Your task to perform on an android device: turn off location Image 0: 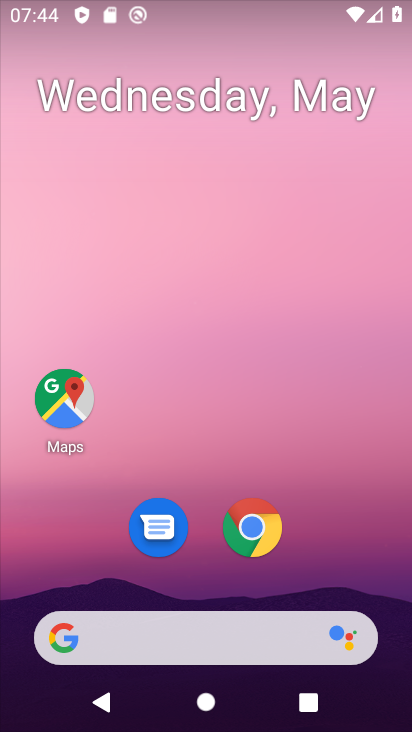
Step 0: drag from (361, 430) to (333, 53)
Your task to perform on an android device: turn off location Image 1: 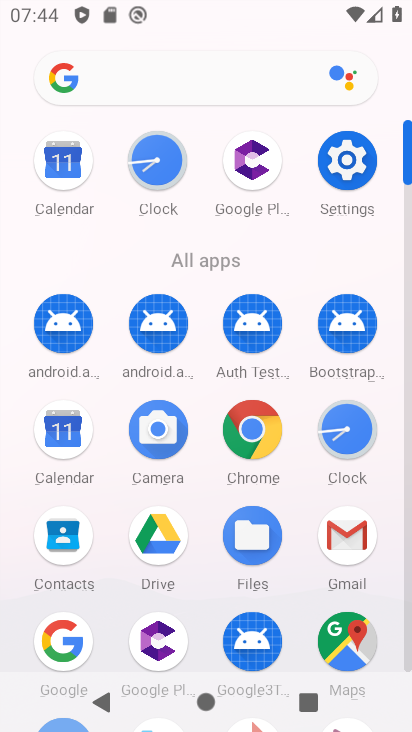
Step 1: click (349, 148)
Your task to perform on an android device: turn off location Image 2: 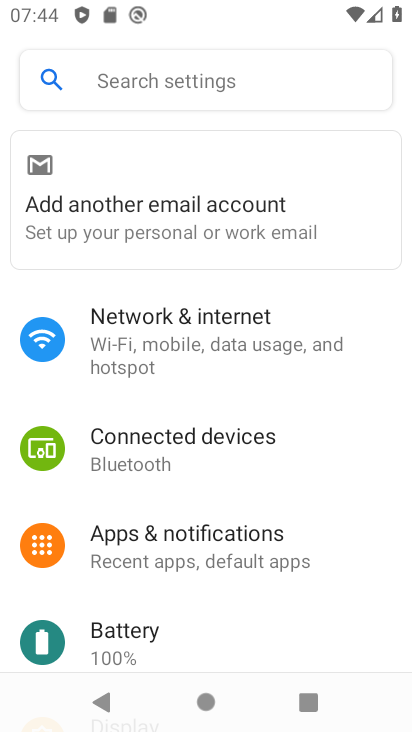
Step 2: drag from (345, 571) to (282, 88)
Your task to perform on an android device: turn off location Image 3: 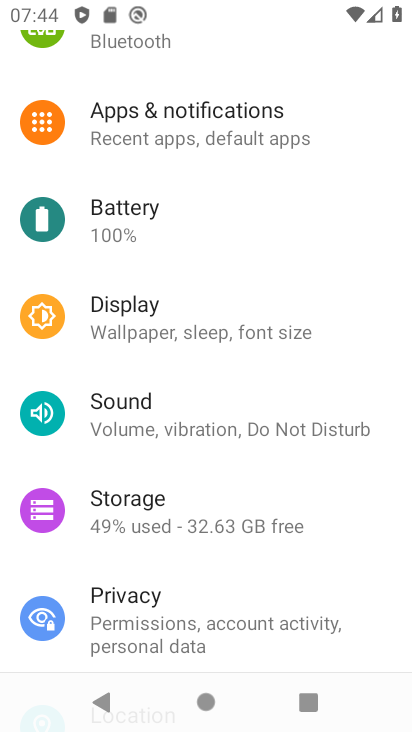
Step 3: drag from (346, 518) to (304, 25)
Your task to perform on an android device: turn off location Image 4: 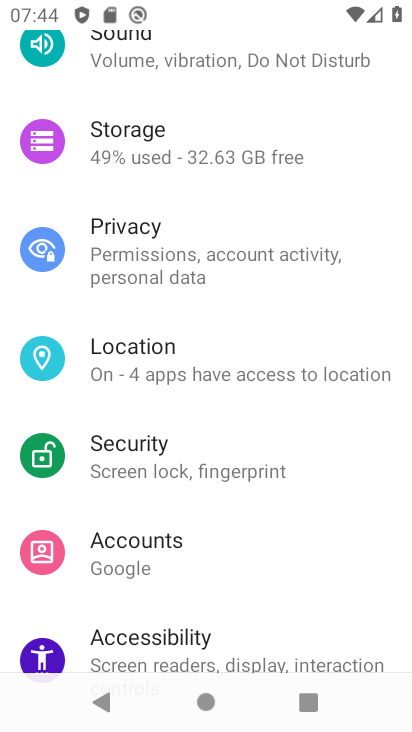
Step 4: click (285, 13)
Your task to perform on an android device: turn off location Image 5: 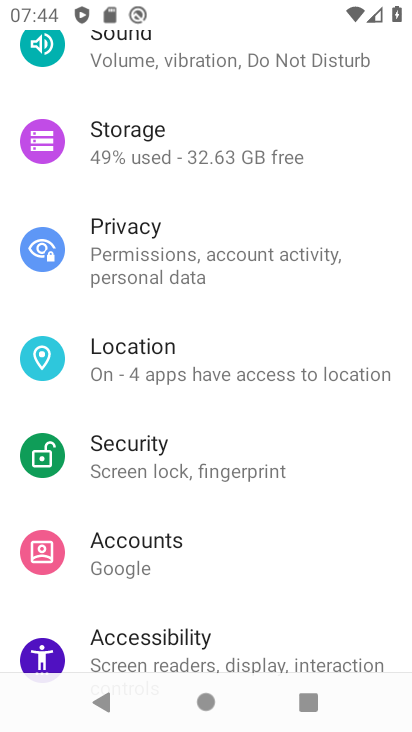
Step 5: drag from (308, 387) to (272, 12)
Your task to perform on an android device: turn off location Image 6: 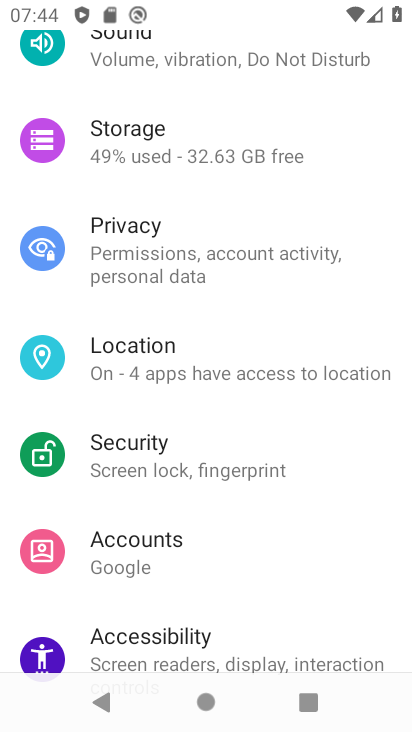
Step 6: drag from (241, 305) to (234, 37)
Your task to perform on an android device: turn off location Image 7: 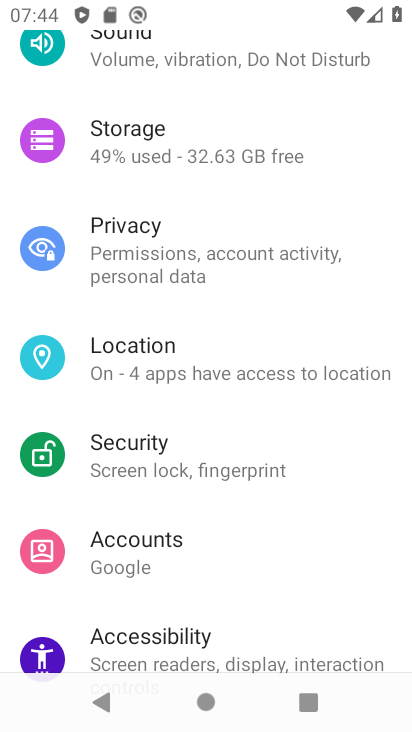
Step 7: click (195, 350)
Your task to perform on an android device: turn off location Image 8: 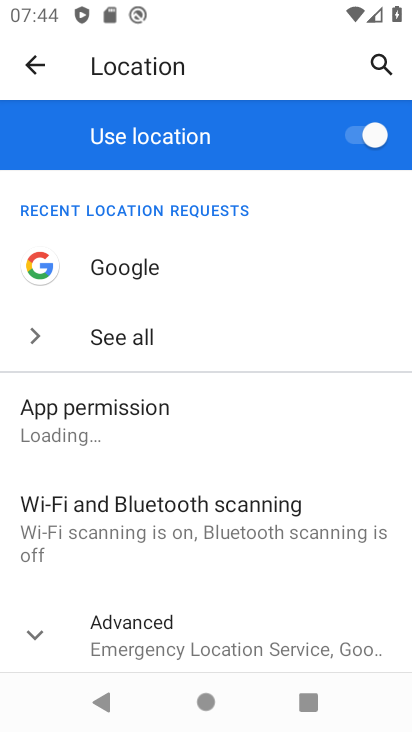
Step 8: click (384, 138)
Your task to perform on an android device: turn off location Image 9: 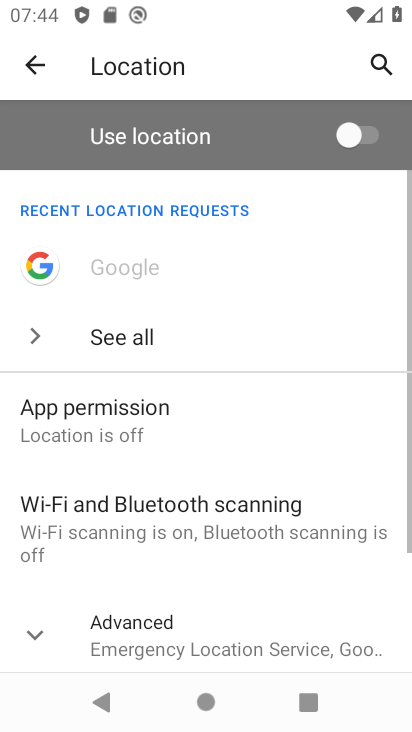
Step 9: task complete